Your task to perform on an android device: Search for macbook pro 15 inch on walmart.com, select the first entry, add it to the cart, then select checkout. Image 0: 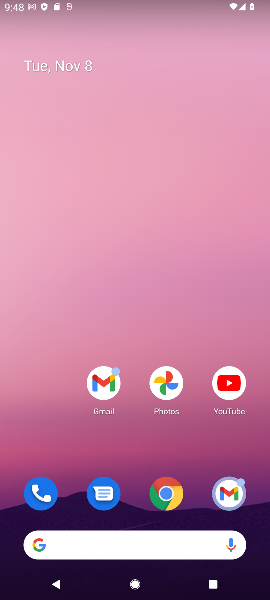
Step 0: click (174, 494)
Your task to perform on an android device: Search for macbook pro 15 inch on walmart.com, select the first entry, add it to the cart, then select checkout. Image 1: 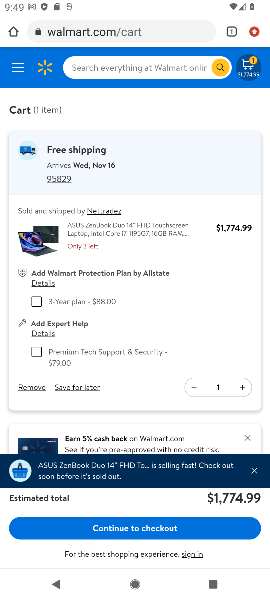
Step 1: click (124, 71)
Your task to perform on an android device: Search for macbook pro 15 inch on walmart.com, select the first entry, add it to the cart, then select checkout. Image 2: 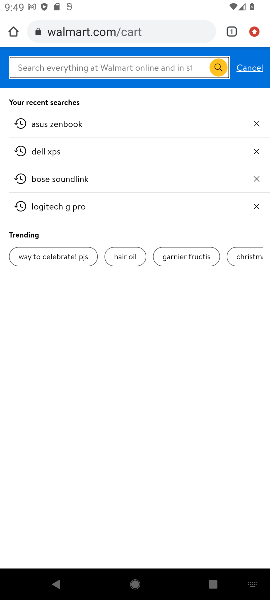
Step 2: type "macbook pro 15 inch"
Your task to perform on an android device: Search for macbook pro 15 inch on walmart.com, select the first entry, add it to the cart, then select checkout. Image 3: 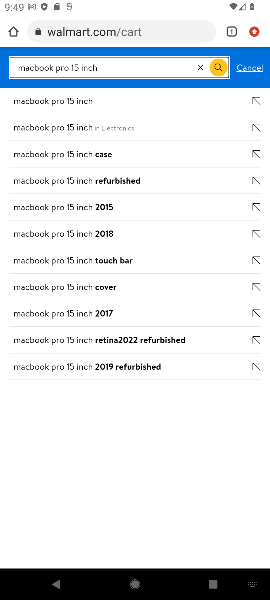
Step 3: click (52, 103)
Your task to perform on an android device: Search for macbook pro 15 inch on walmart.com, select the first entry, add it to the cart, then select checkout. Image 4: 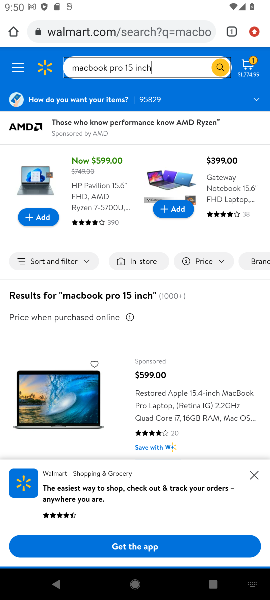
Step 4: task complete